Your task to perform on an android device: What's on my calendar tomorrow? Image 0: 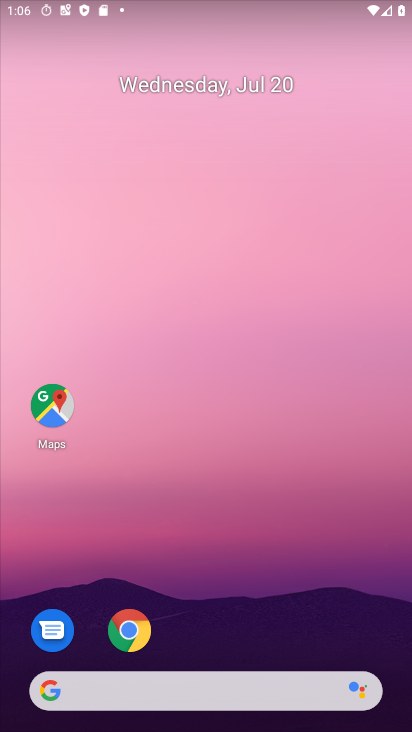
Step 0: drag from (299, 616) to (200, 39)
Your task to perform on an android device: What's on my calendar tomorrow? Image 1: 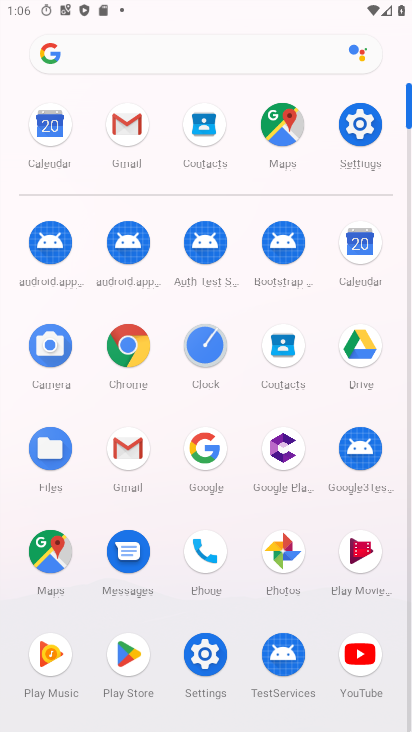
Step 1: click (367, 228)
Your task to perform on an android device: What's on my calendar tomorrow? Image 2: 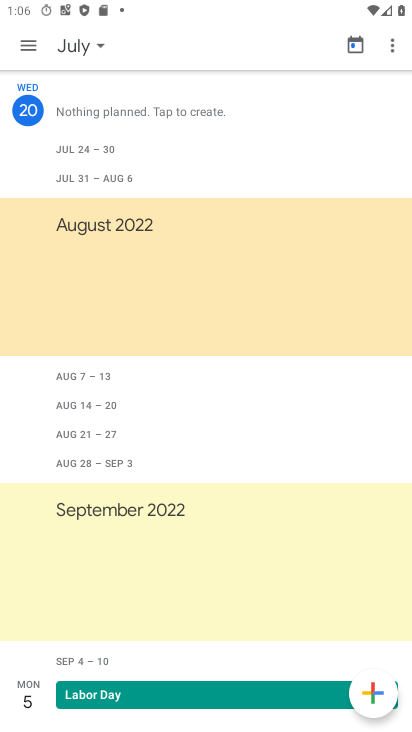
Step 2: click (69, 49)
Your task to perform on an android device: What's on my calendar tomorrow? Image 3: 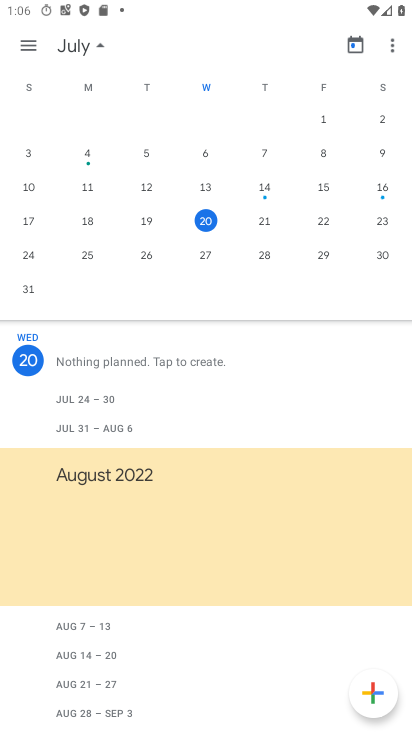
Step 3: click (261, 215)
Your task to perform on an android device: What's on my calendar tomorrow? Image 4: 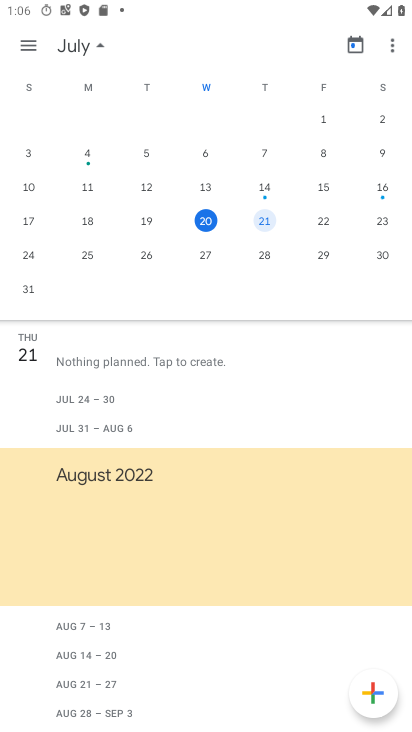
Step 4: task complete